Your task to perform on an android device: make emails show in primary in the gmail app Image 0: 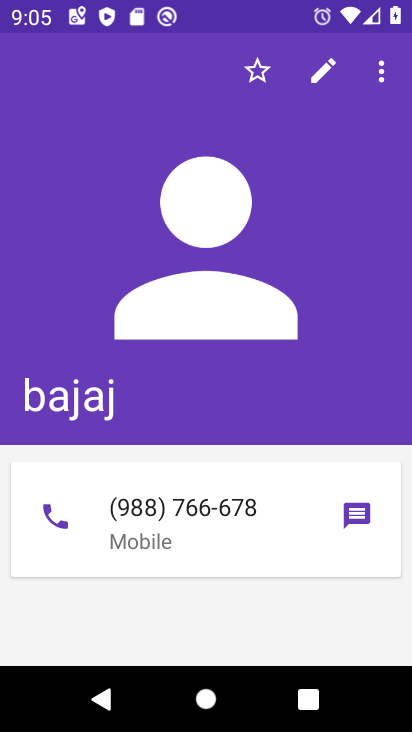
Step 0: press home button
Your task to perform on an android device: make emails show in primary in the gmail app Image 1: 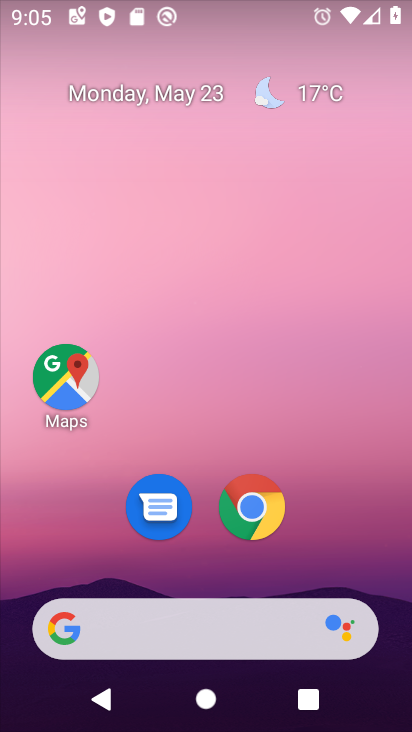
Step 1: drag from (371, 594) to (327, 11)
Your task to perform on an android device: make emails show in primary in the gmail app Image 2: 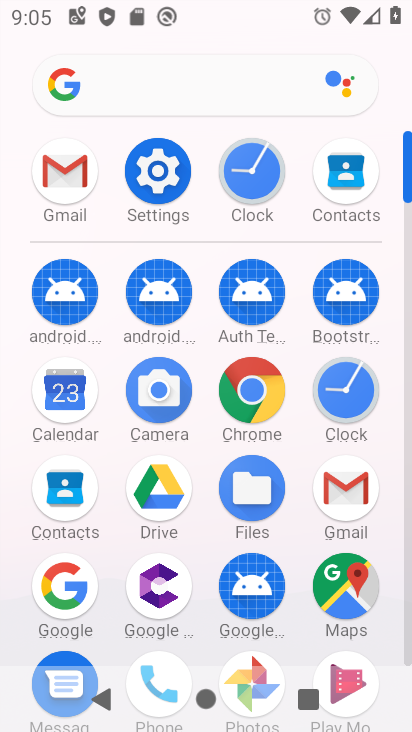
Step 2: click (69, 183)
Your task to perform on an android device: make emails show in primary in the gmail app Image 3: 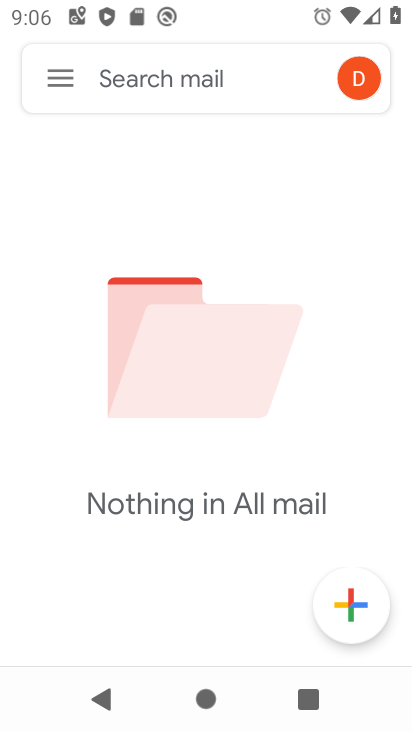
Step 3: click (55, 82)
Your task to perform on an android device: make emails show in primary in the gmail app Image 4: 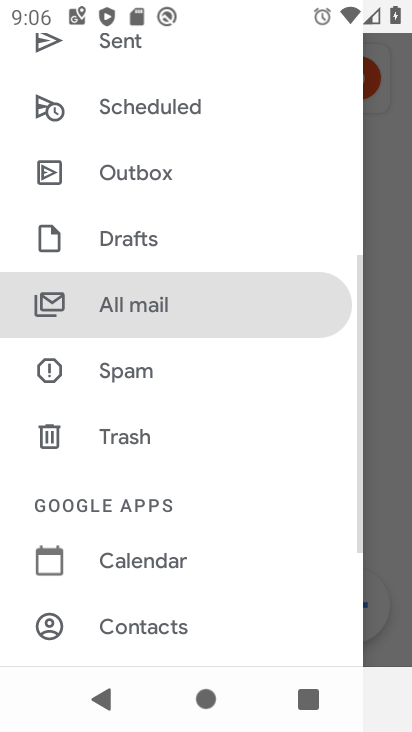
Step 4: drag from (189, 523) to (168, 110)
Your task to perform on an android device: make emails show in primary in the gmail app Image 5: 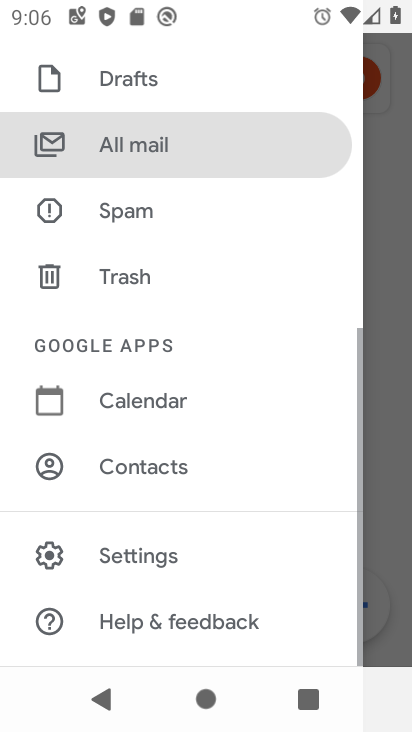
Step 5: click (135, 558)
Your task to perform on an android device: make emails show in primary in the gmail app Image 6: 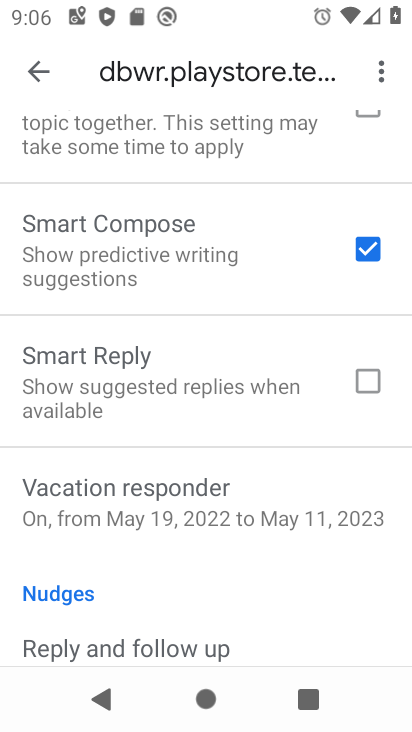
Step 6: drag from (190, 267) to (209, 701)
Your task to perform on an android device: make emails show in primary in the gmail app Image 7: 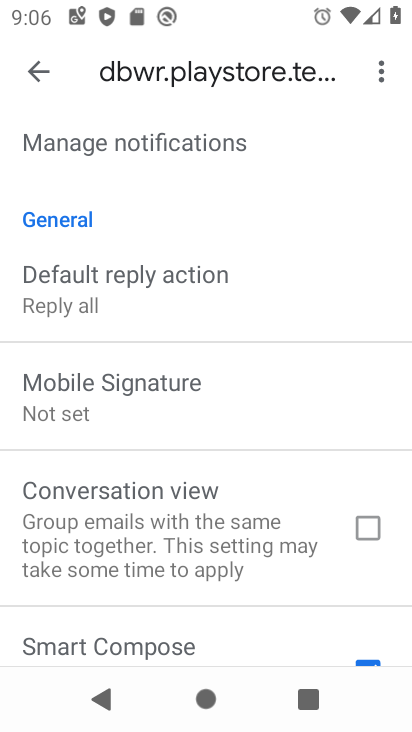
Step 7: drag from (163, 233) to (167, 713)
Your task to perform on an android device: make emails show in primary in the gmail app Image 8: 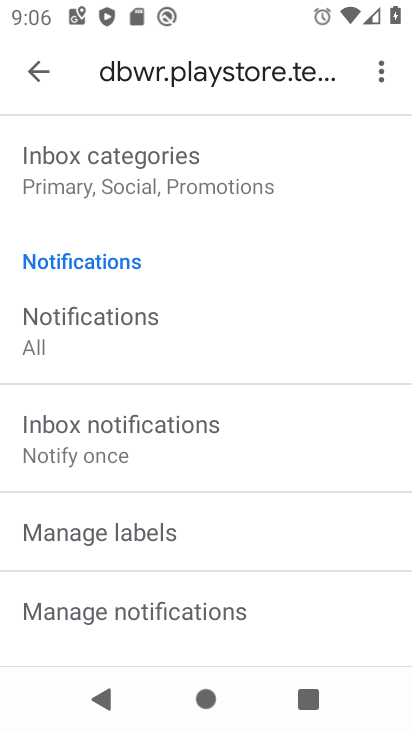
Step 8: click (113, 196)
Your task to perform on an android device: make emails show in primary in the gmail app Image 9: 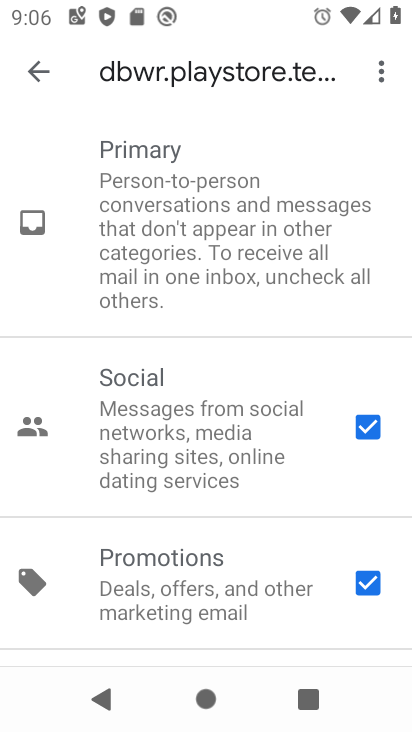
Step 9: click (356, 427)
Your task to perform on an android device: make emails show in primary in the gmail app Image 10: 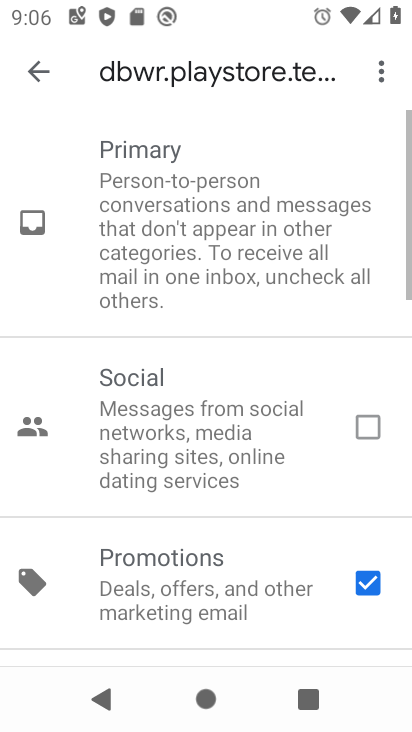
Step 10: click (365, 575)
Your task to perform on an android device: make emails show in primary in the gmail app Image 11: 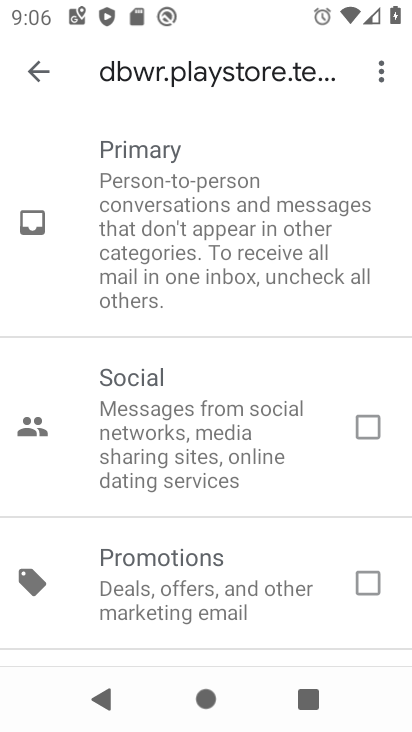
Step 11: click (36, 78)
Your task to perform on an android device: make emails show in primary in the gmail app Image 12: 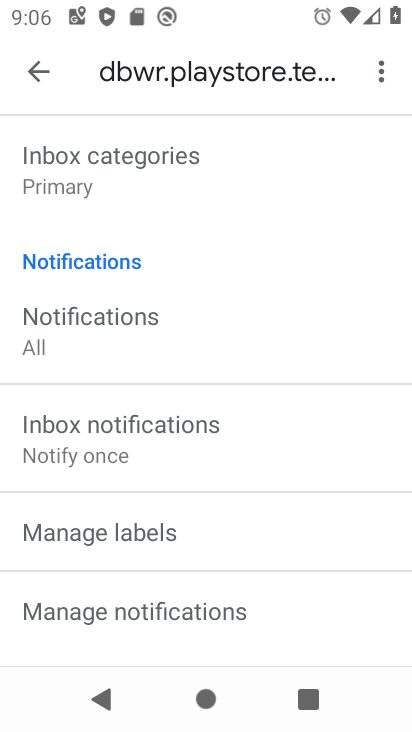
Step 12: task complete